Your task to perform on an android device: Search for vegetarian restaurants on Maps Image 0: 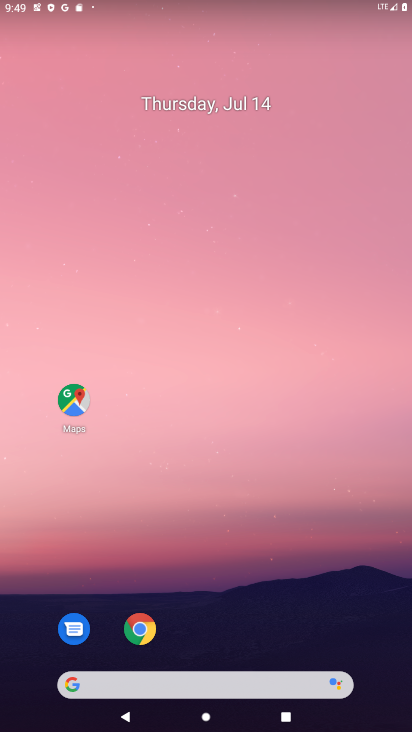
Step 0: click (79, 386)
Your task to perform on an android device: Search for vegetarian restaurants on Maps Image 1: 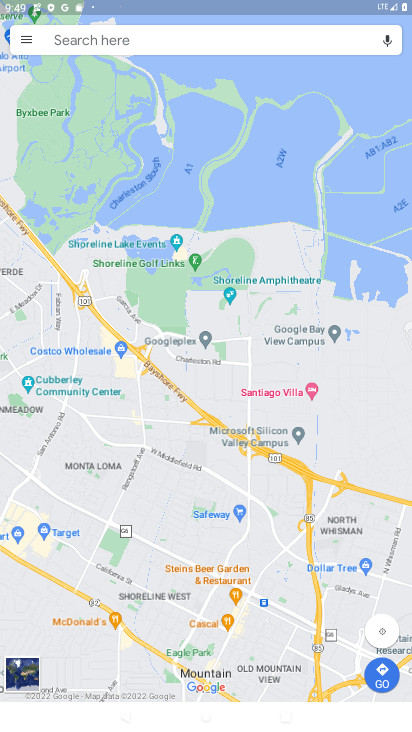
Step 1: click (215, 46)
Your task to perform on an android device: Search for vegetarian restaurants on Maps Image 2: 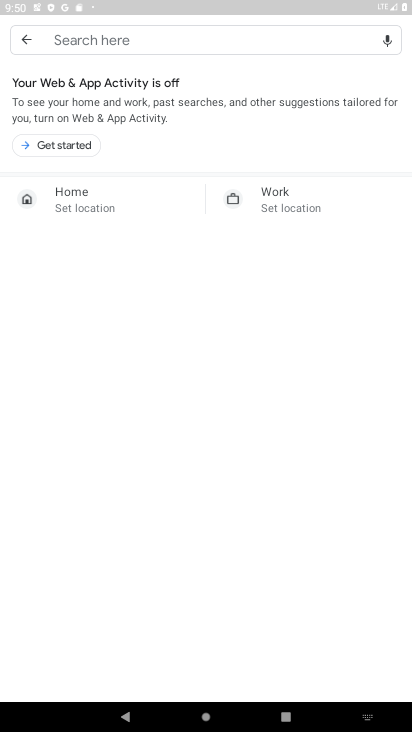
Step 2: type "vegetarian restaurants"
Your task to perform on an android device: Search for vegetarian restaurants on Maps Image 3: 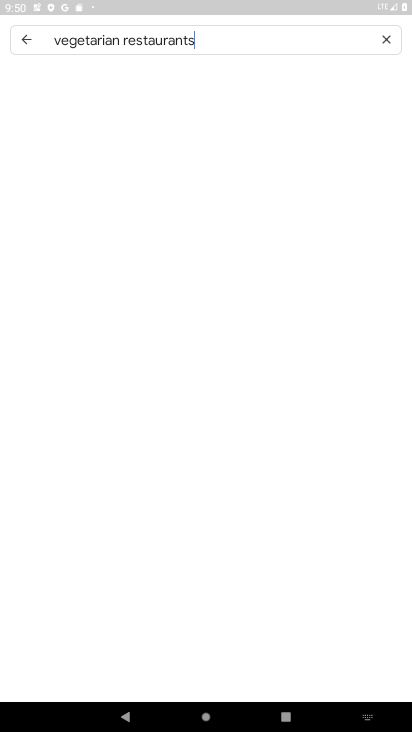
Step 3: type ""
Your task to perform on an android device: Search for vegetarian restaurants on Maps Image 4: 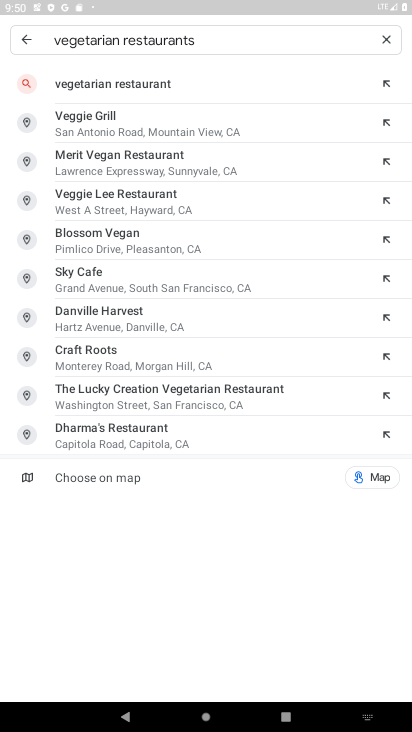
Step 4: click (181, 90)
Your task to perform on an android device: Search for vegetarian restaurants on Maps Image 5: 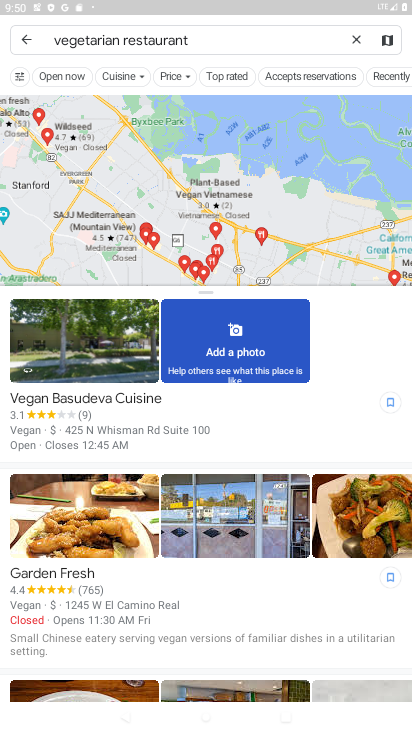
Step 5: task complete